Your task to perform on an android device: What's on my calendar today? Image 0: 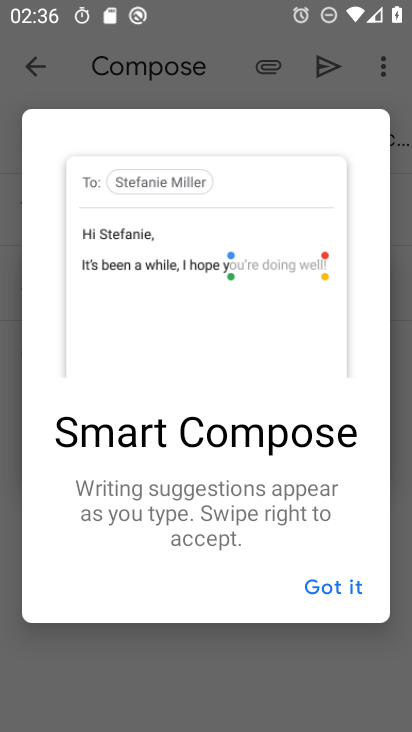
Step 0: press home button
Your task to perform on an android device: What's on my calendar today? Image 1: 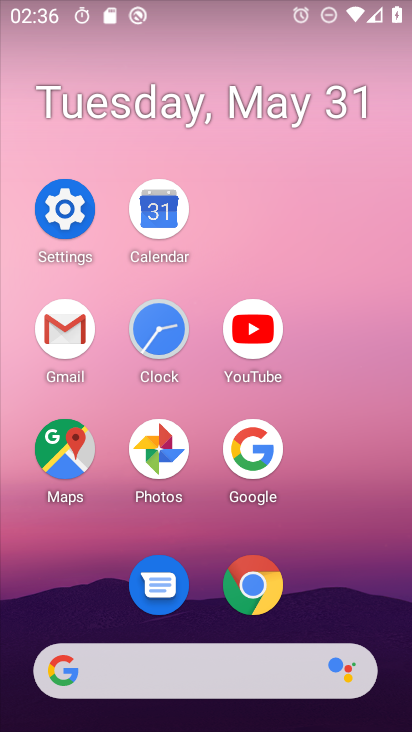
Step 1: click (149, 183)
Your task to perform on an android device: What's on my calendar today? Image 2: 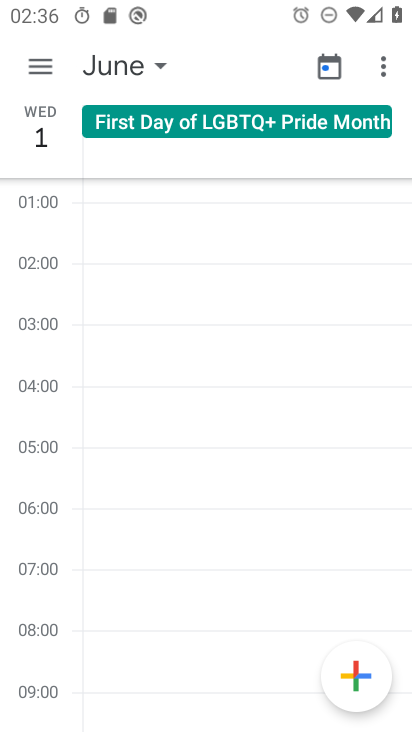
Step 2: click (38, 60)
Your task to perform on an android device: What's on my calendar today? Image 3: 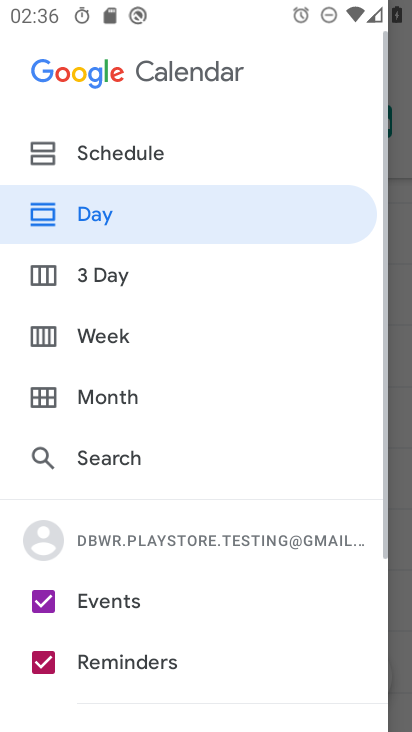
Step 3: click (107, 209)
Your task to perform on an android device: What's on my calendar today? Image 4: 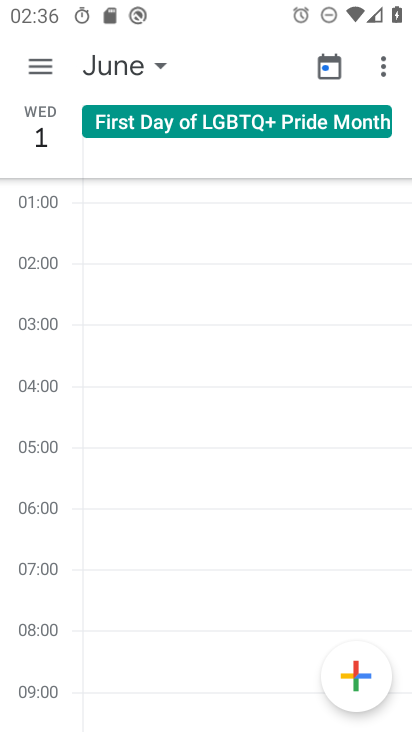
Step 4: task complete